Your task to perform on an android device: turn vacation reply on in the gmail app Image 0: 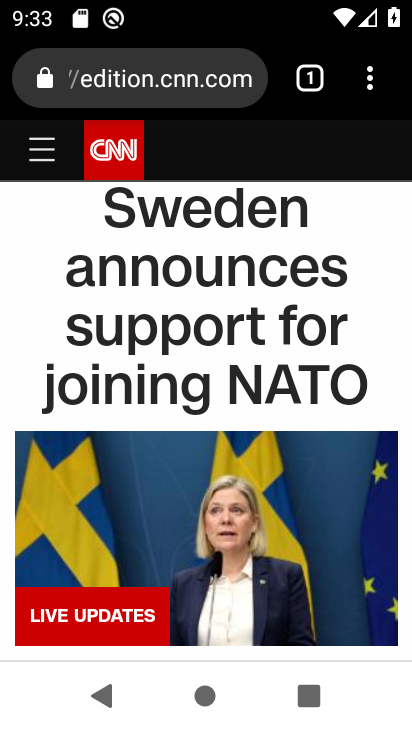
Step 0: press home button
Your task to perform on an android device: turn vacation reply on in the gmail app Image 1: 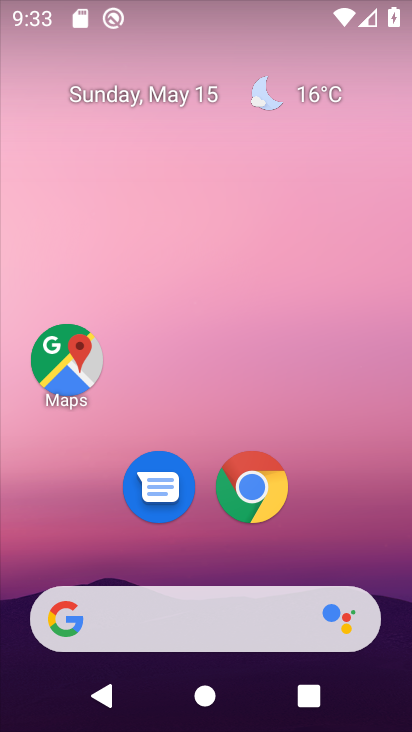
Step 1: drag from (359, 538) to (359, 92)
Your task to perform on an android device: turn vacation reply on in the gmail app Image 2: 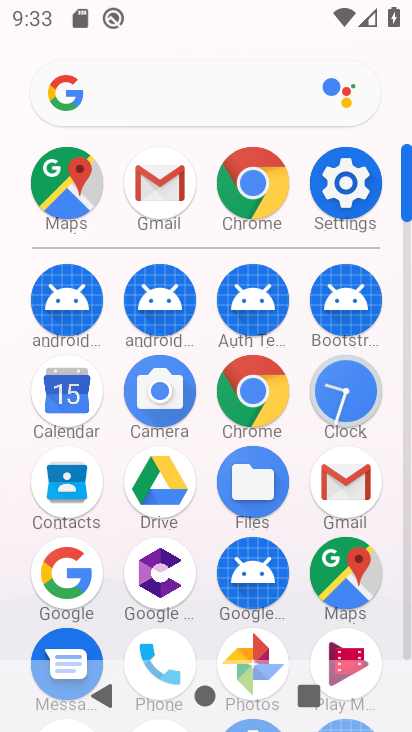
Step 2: click (346, 498)
Your task to perform on an android device: turn vacation reply on in the gmail app Image 3: 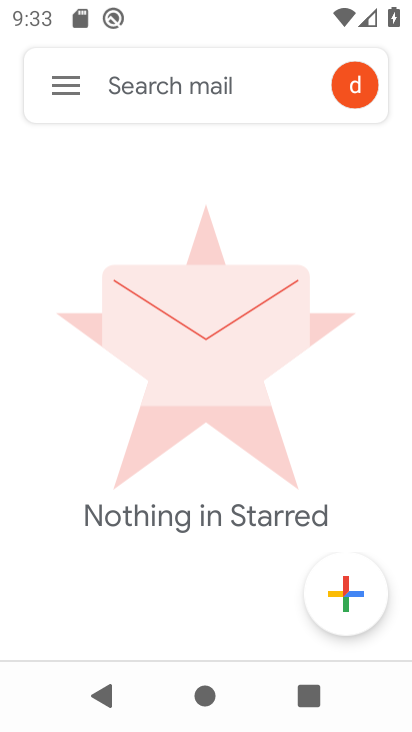
Step 3: click (68, 86)
Your task to perform on an android device: turn vacation reply on in the gmail app Image 4: 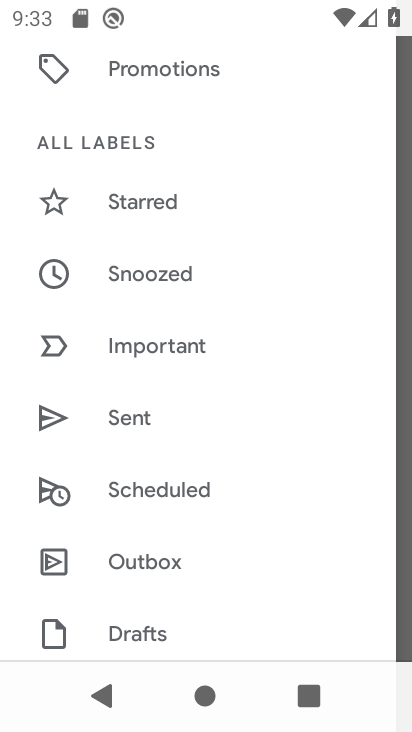
Step 4: drag from (259, 590) to (240, 260)
Your task to perform on an android device: turn vacation reply on in the gmail app Image 5: 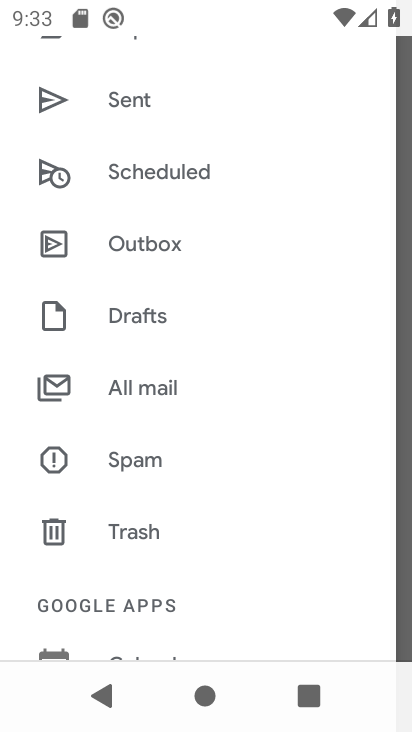
Step 5: drag from (274, 518) to (264, 148)
Your task to perform on an android device: turn vacation reply on in the gmail app Image 6: 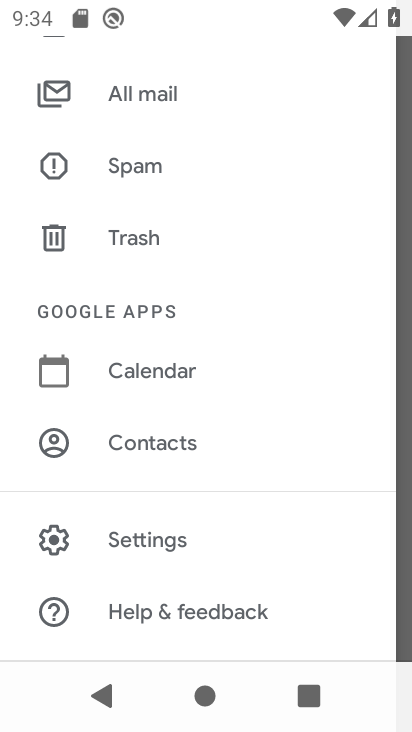
Step 6: drag from (222, 110) to (219, 488)
Your task to perform on an android device: turn vacation reply on in the gmail app Image 7: 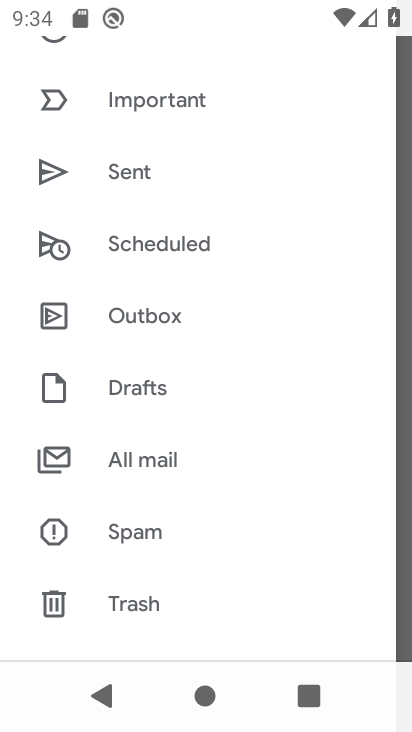
Step 7: drag from (222, 615) to (290, 173)
Your task to perform on an android device: turn vacation reply on in the gmail app Image 8: 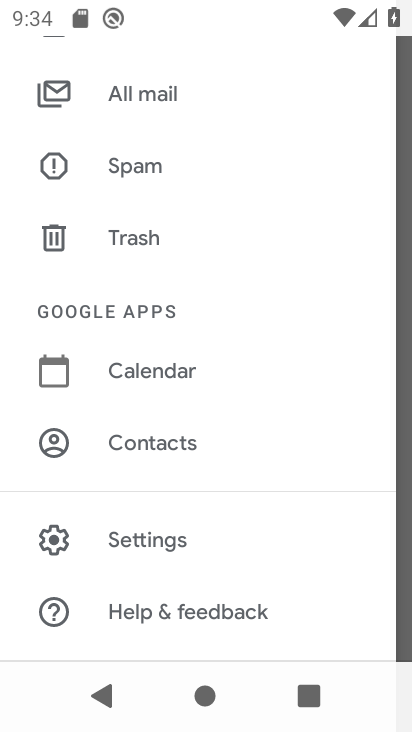
Step 8: click (173, 520)
Your task to perform on an android device: turn vacation reply on in the gmail app Image 9: 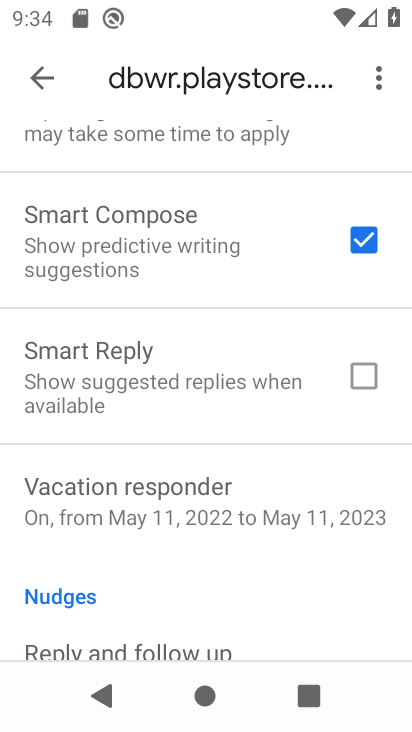
Step 9: drag from (258, 298) to (242, 500)
Your task to perform on an android device: turn vacation reply on in the gmail app Image 10: 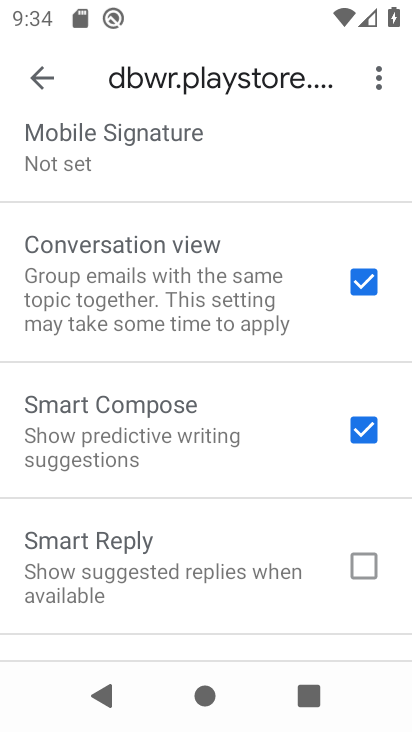
Step 10: drag from (244, 495) to (248, 322)
Your task to perform on an android device: turn vacation reply on in the gmail app Image 11: 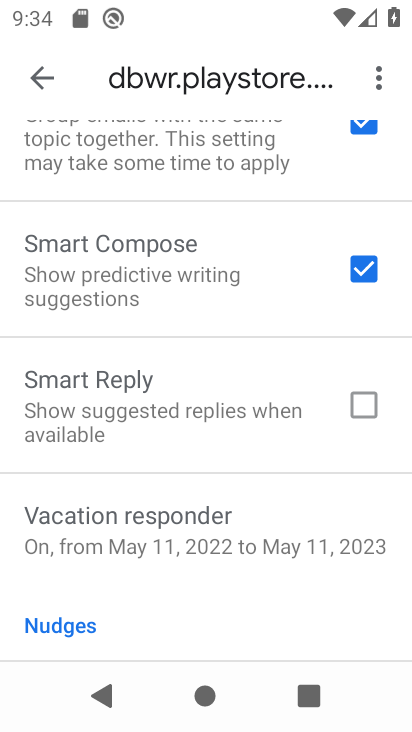
Step 11: click (240, 496)
Your task to perform on an android device: turn vacation reply on in the gmail app Image 12: 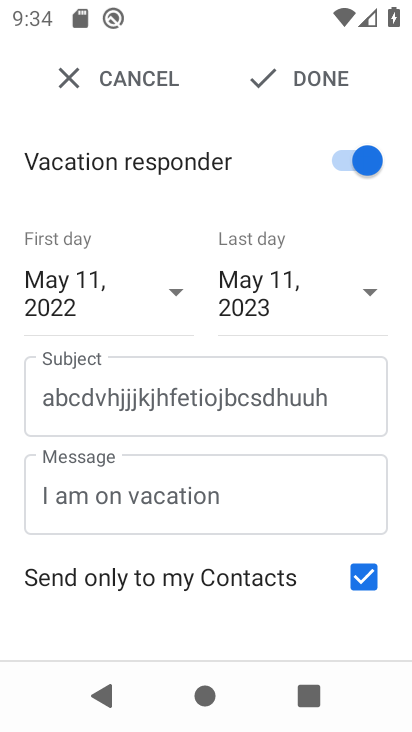
Step 12: task complete